Your task to perform on an android device: turn on airplane mode Image 0: 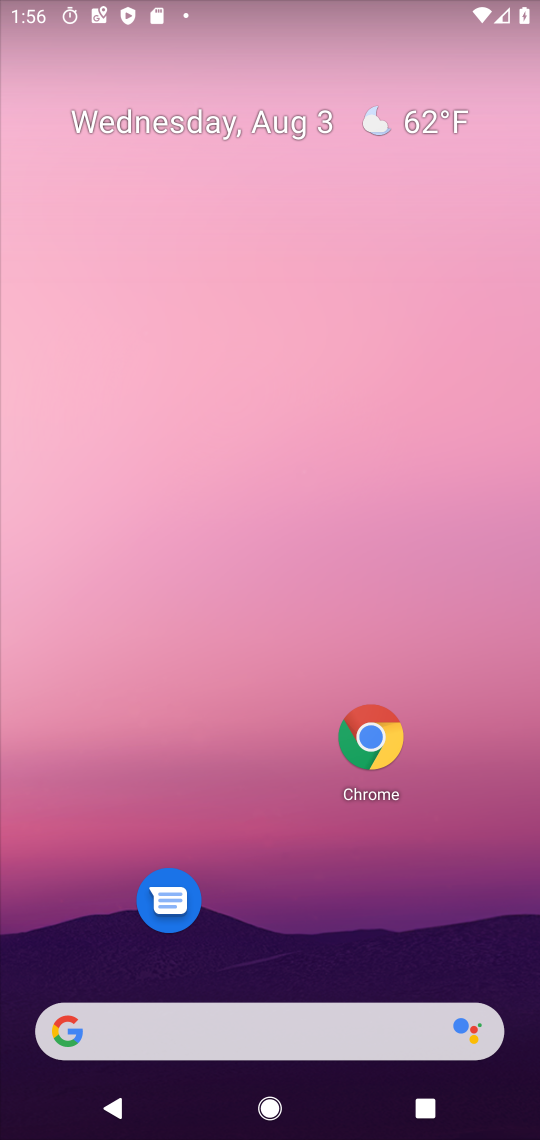
Step 0: drag from (281, 583) to (309, 131)
Your task to perform on an android device: turn on airplane mode Image 1: 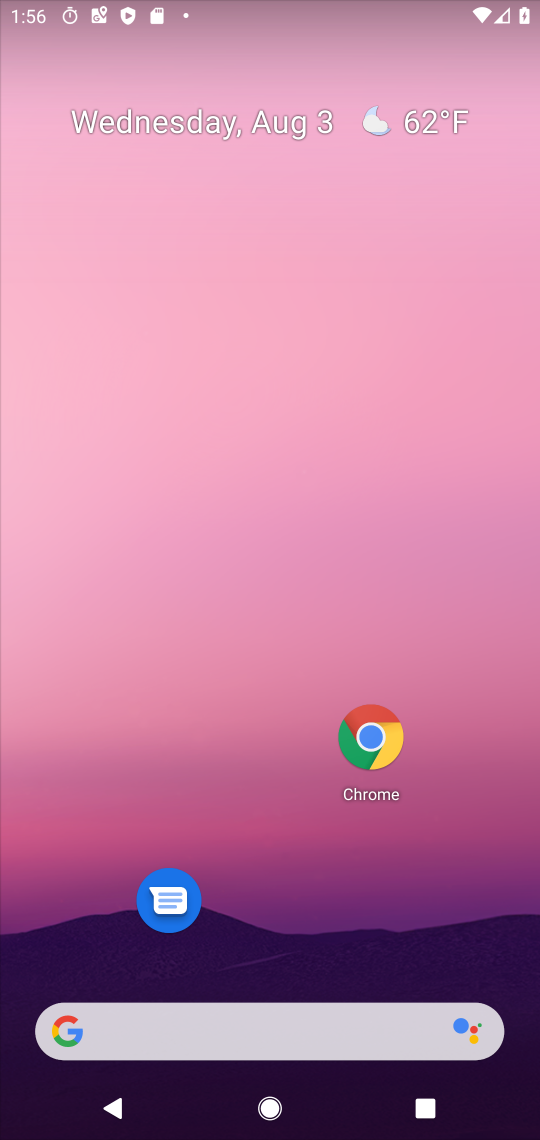
Step 1: drag from (272, 894) to (298, 138)
Your task to perform on an android device: turn on airplane mode Image 2: 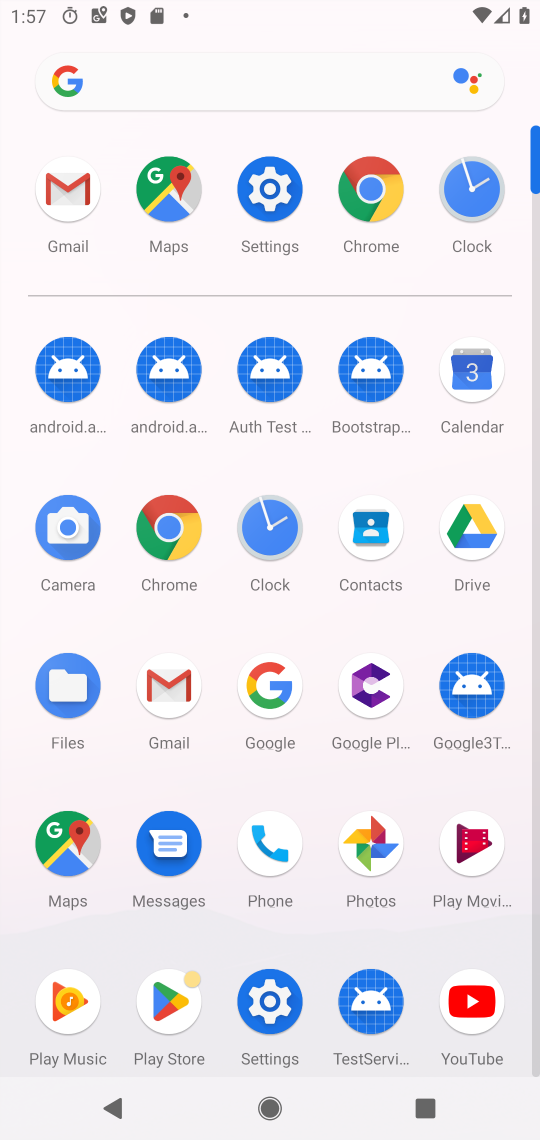
Step 2: click (273, 182)
Your task to perform on an android device: turn on airplane mode Image 3: 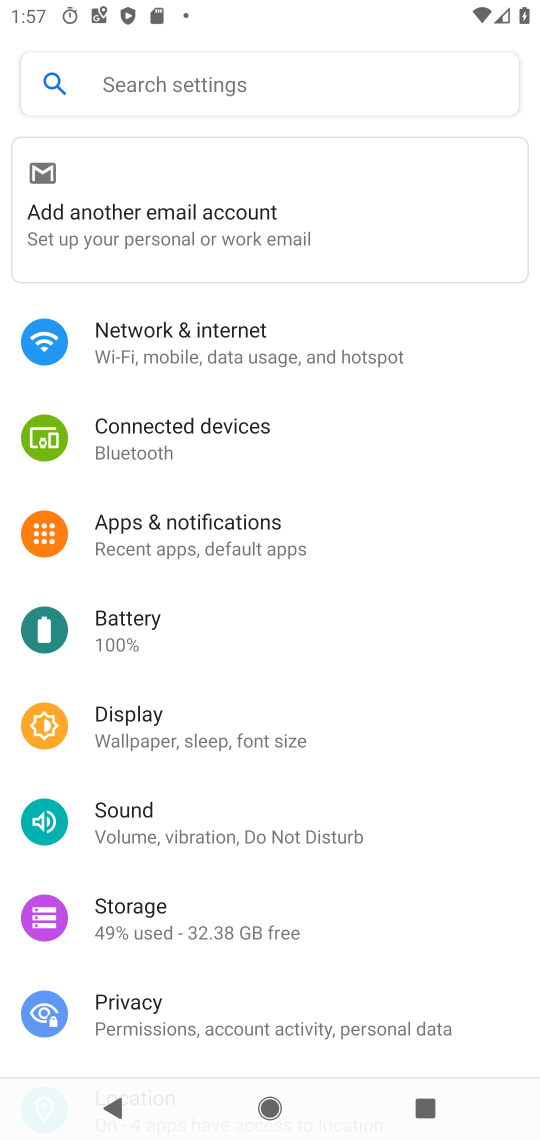
Step 3: click (240, 361)
Your task to perform on an android device: turn on airplane mode Image 4: 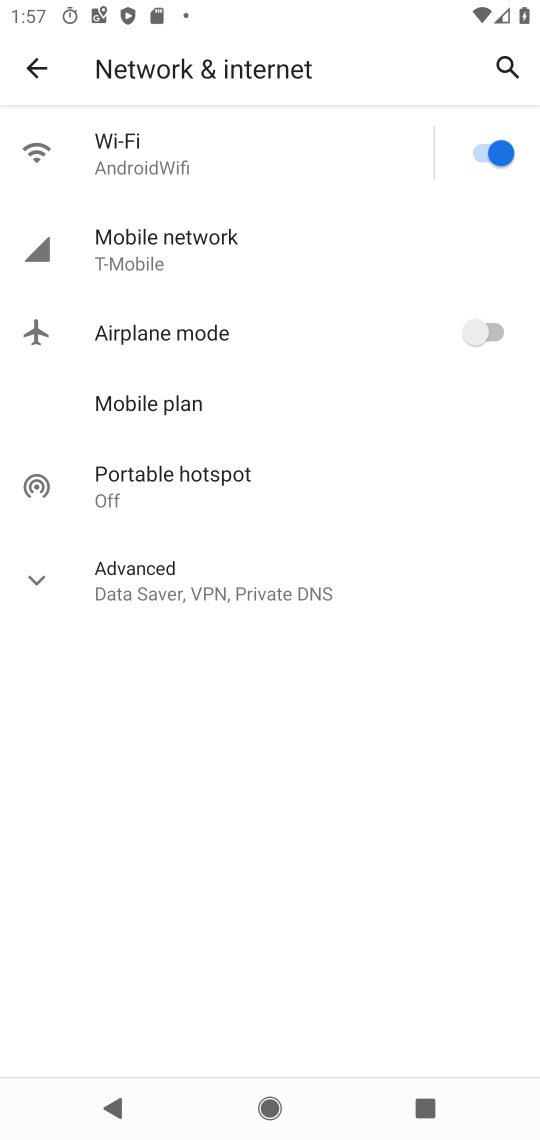
Step 4: click (466, 329)
Your task to perform on an android device: turn on airplane mode Image 5: 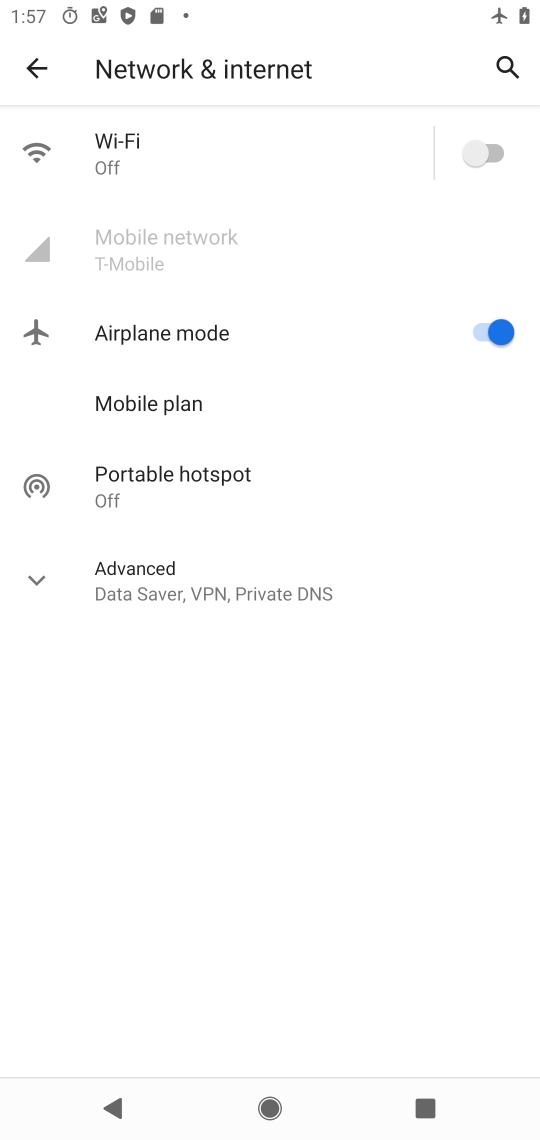
Step 5: task complete